Your task to perform on an android device: change notifications settings Image 0: 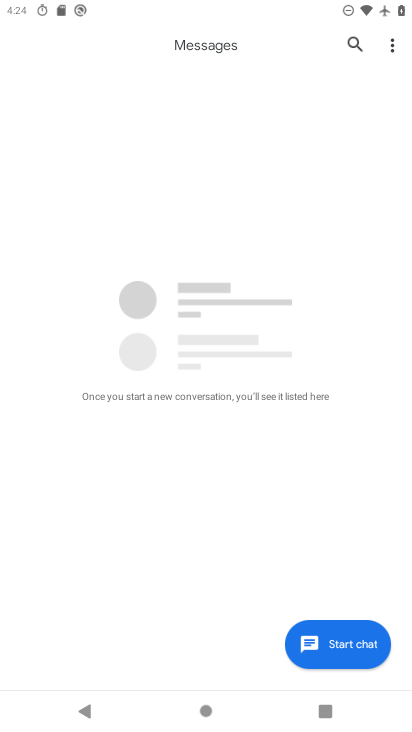
Step 0: drag from (237, 614) to (277, 2)
Your task to perform on an android device: change notifications settings Image 1: 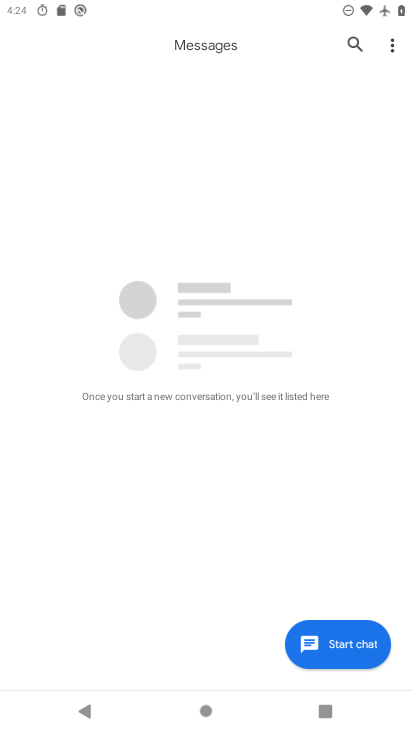
Step 1: press home button
Your task to perform on an android device: change notifications settings Image 2: 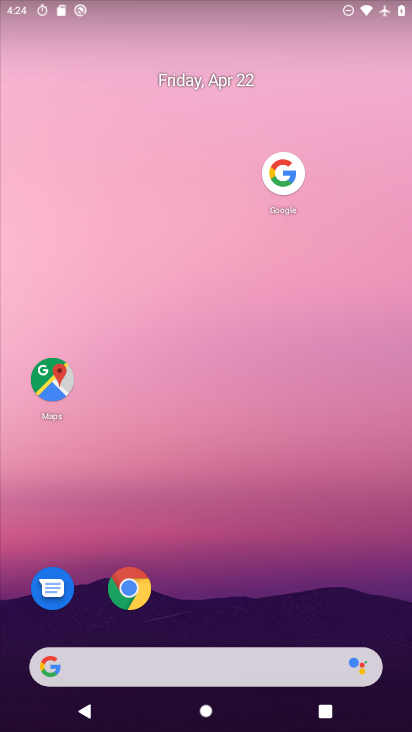
Step 2: drag from (209, 626) to (375, 26)
Your task to perform on an android device: change notifications settings Image 3: 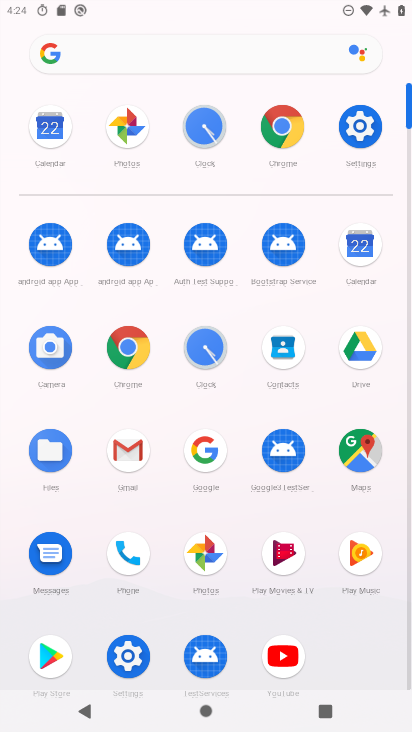
Step 3: click (125, 669)
Your task to perform on an android device: change notifications settings Image 4: 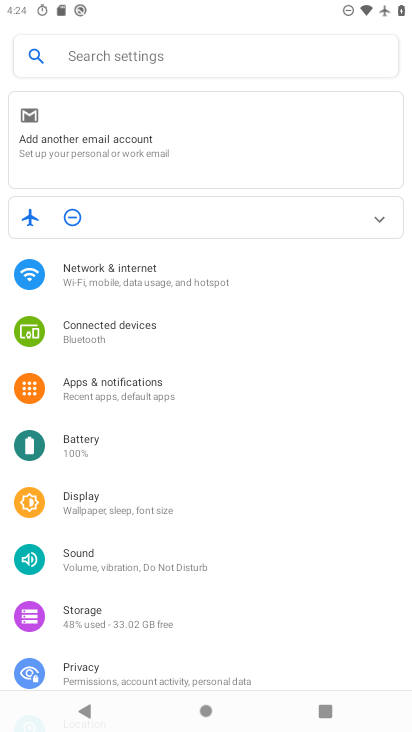
Step 4: click (113, 389)
Your task to perform on an android device: change notifications settings Image 5: 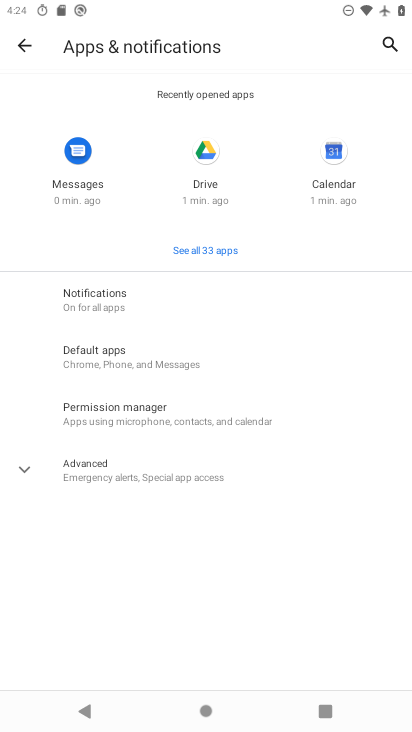
Step 5: click (75, 284)
Your task to perform on an android device: change notifications settings Image 6: 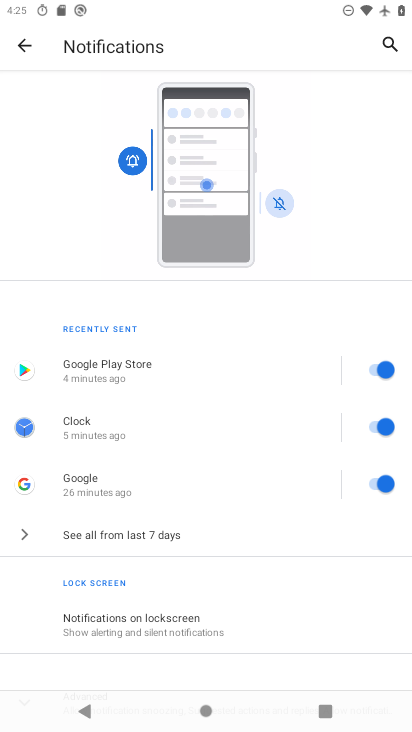
Step 6: task complete